Your task to perform on an android device: check battery use Image 0: 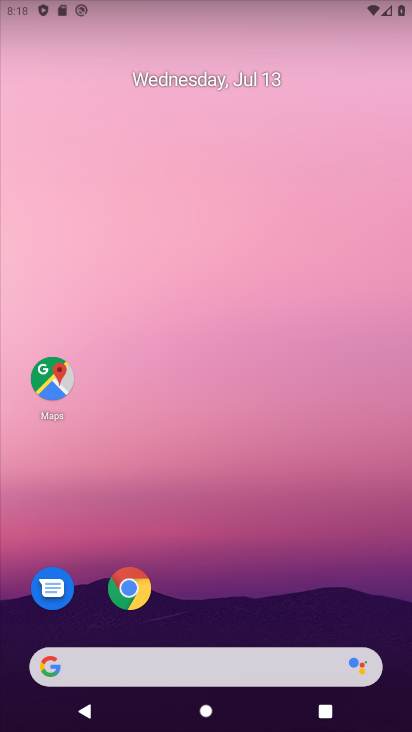
Step 0: drag from (262, 619) to (173, 114)
Your task to perform on an android device: check battery use Image 1: 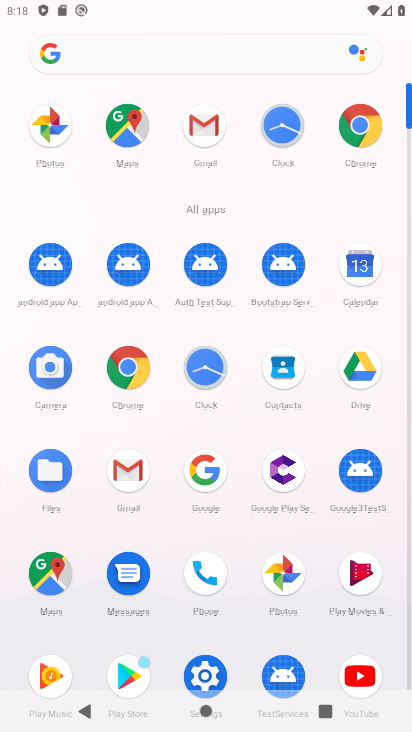
Step 1: click (217, 676)
Your task to perform on an android device: check battery use Image 2: 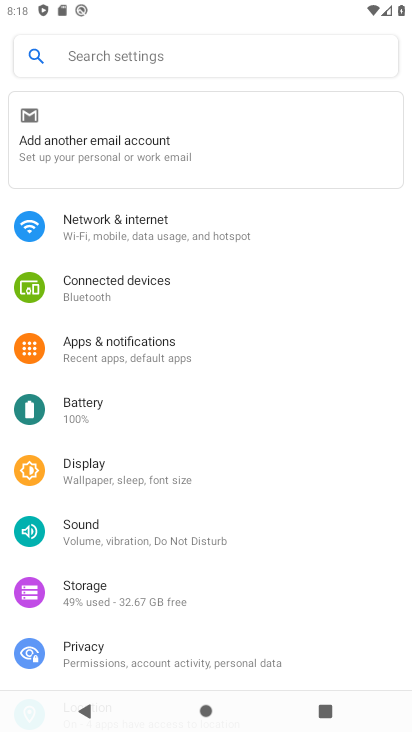
Step 2: click (164, 423)
Your task to perform on an android device: check battery use Image 3: 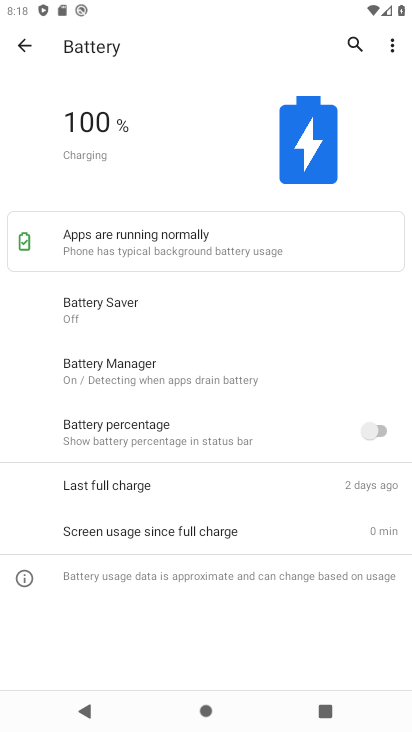
Step 3: click (389, 42)
Your task to perform on an android device: check battery use Image 4: 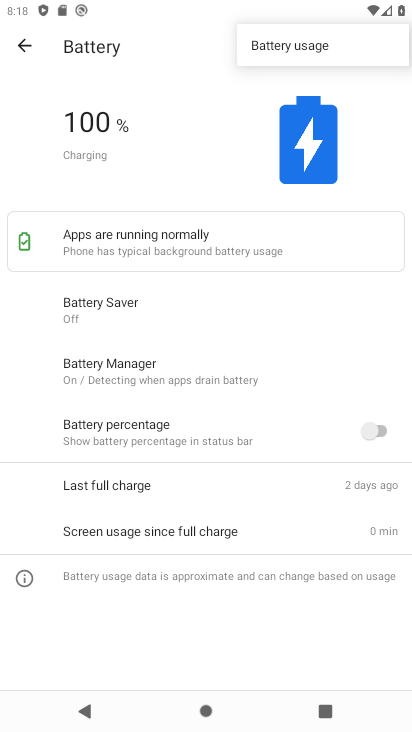
Step 4: click (356, 41)
Your task to perform on an android device: check battery use Image 5: 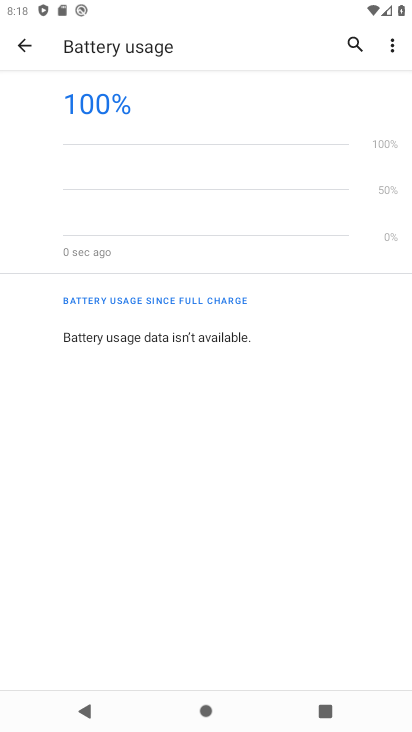
Step 5: task complete